Your task to perform on an android device: toggle location history Image 0: 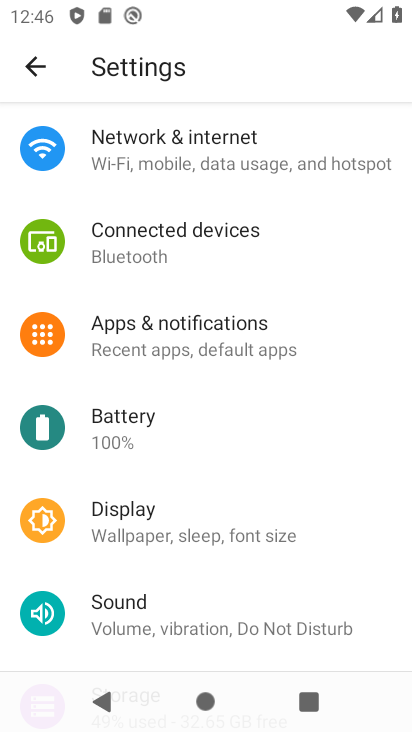
Step 0: drag from (245, 563) to (268, 94)
Your task to perform on an android device: toggle location history Image 1: 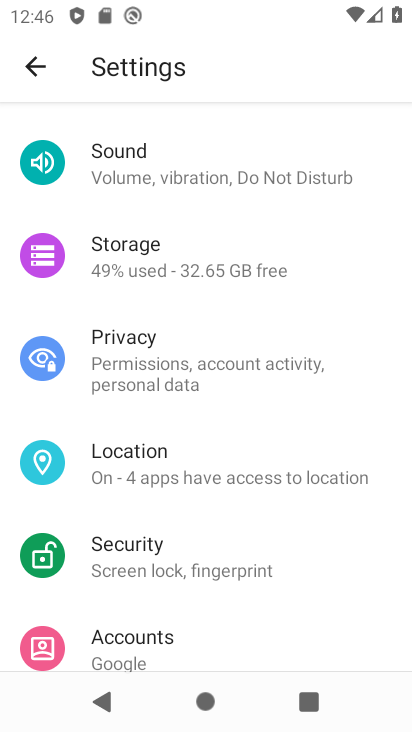
Step 1: click (189, 466)
Your task to perform on an android device: toggle location history Image 2: 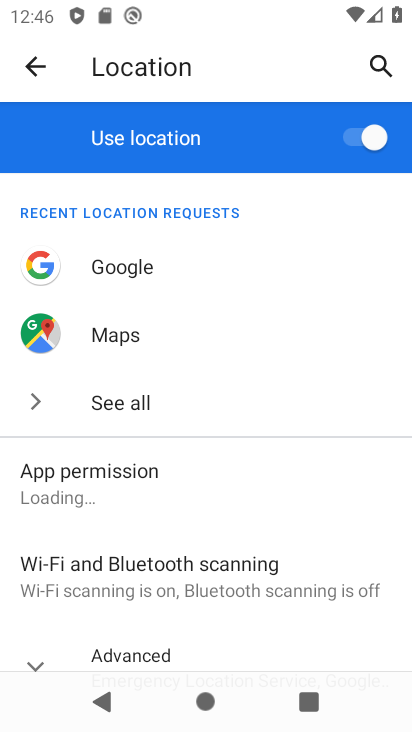
Step 2: drag from (217, 470) to (277, 185)
Your task to perform on an android device: toggle location history Image 3: 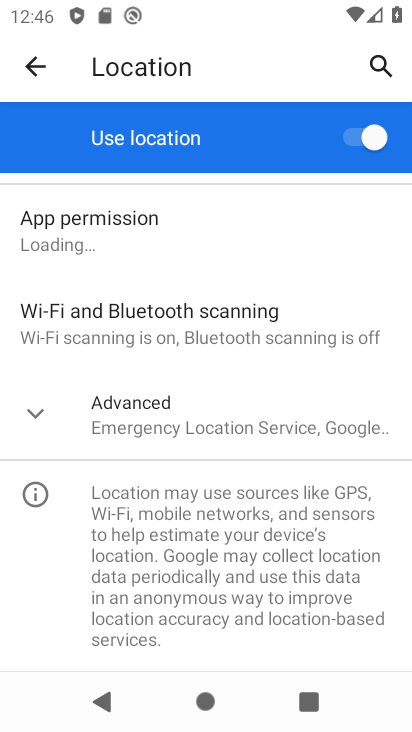
Step 3: click (43, 410)
Your task to perform on an android device: toggle location history Image 4: 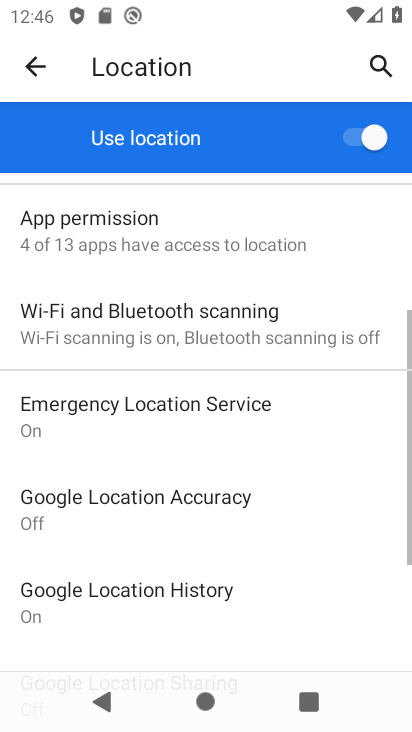
Step 4: drag from (212, 539) to (238, 292)
Your task to perform on an android device: toggle location history Image 5: 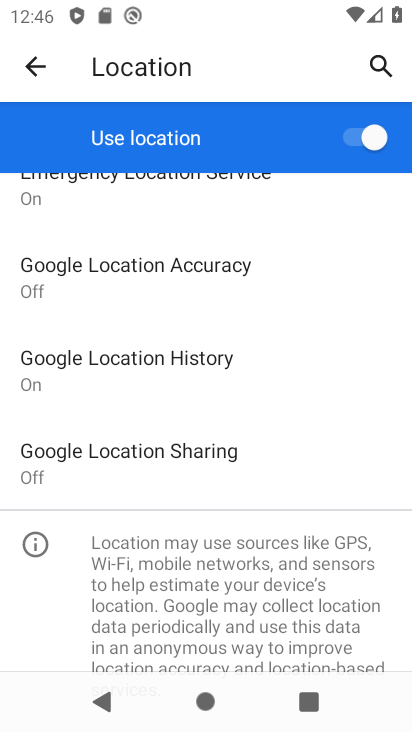
Step 5: click (222, 372)
Your task to perform on an android device: toggle location history Image 6: 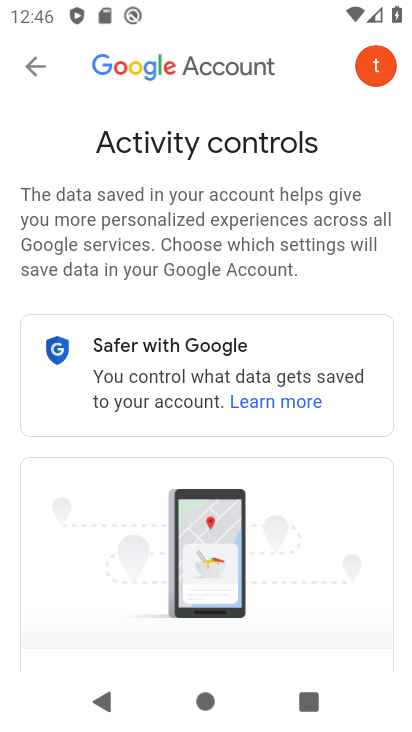
Step 6: drag from (262, 543) to (284, 153)
Your task to perform on an android device: toggle location history Image 7: 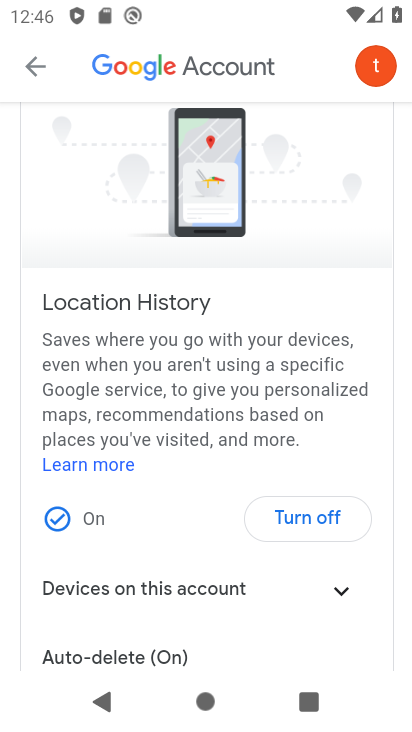
Step 7: click (320, 515)
Your task to perform on an android device: toggle location history Image 8: 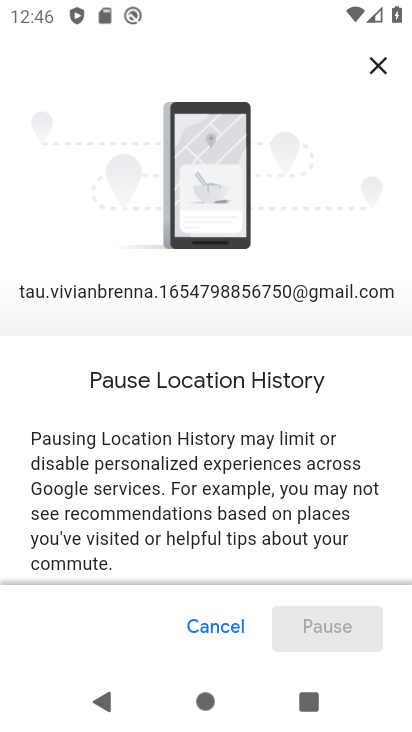
Step 8: drag from (320, 515) to (310, 0)
Your task to perform on an android device: toggle location history Image 9: 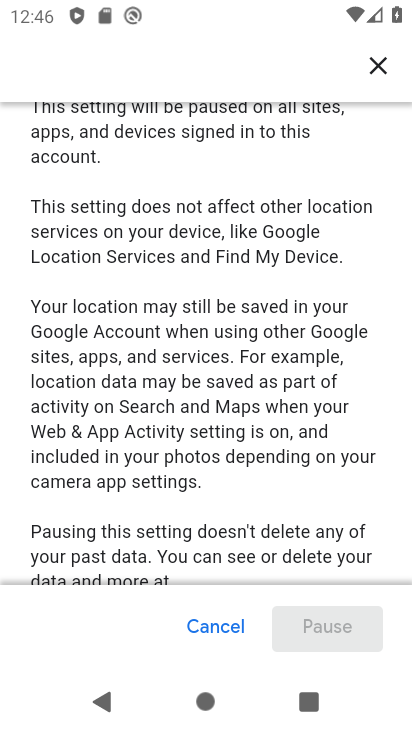
Step 9: drag from (306, 486) to (304, 79)
Your task to perform on an android device: toggle location history Image 10: 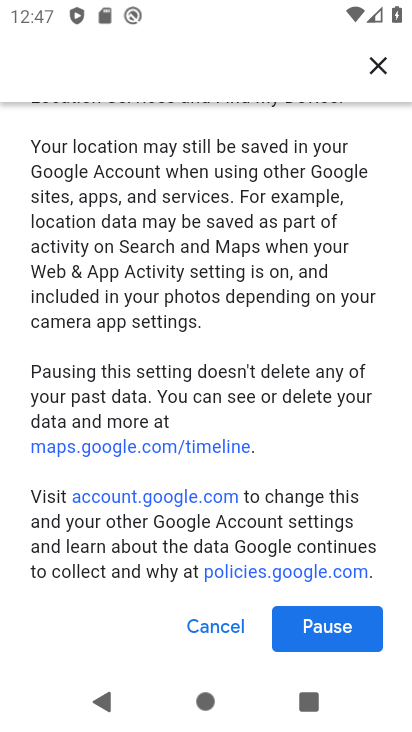
Step 10: click (354, 628)
Your task to perform on an android device: toggle location history Image 11: 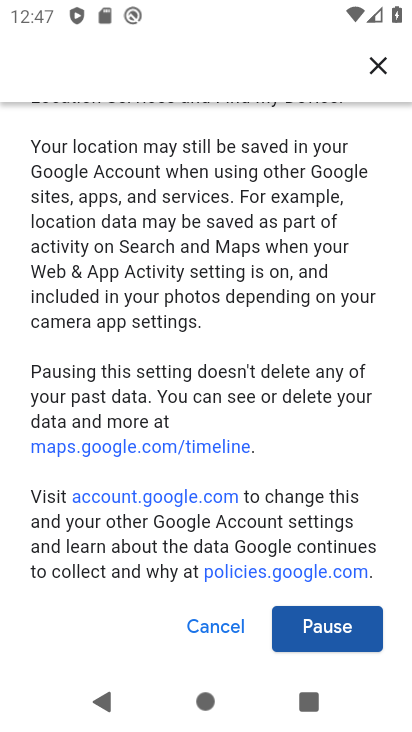
Step 11: click (319, 634)
Your task to perform on an android device: toggle location history Image 12: 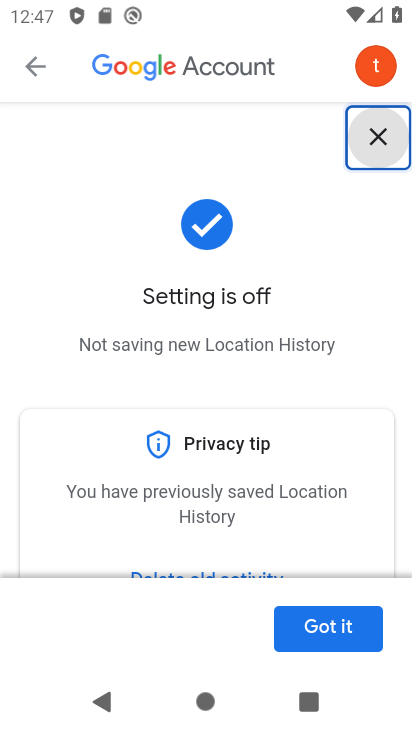
Step 12: click (316, 626)
Your task to perform on an android device: toggle location history Image 13: 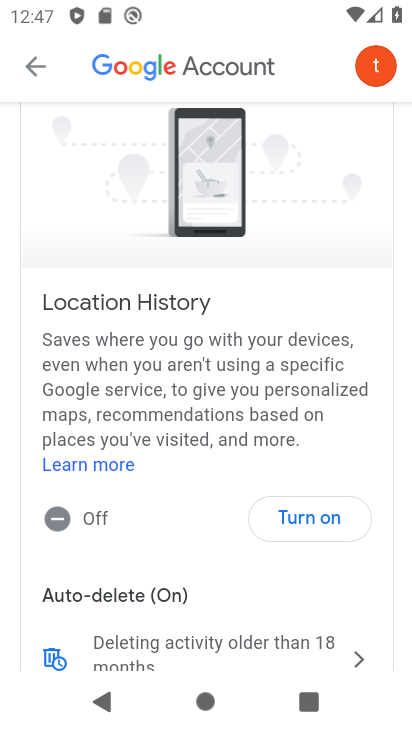
Step 13: task complete